Your task to perform on an android device: choose inbox layout in the gmail app Image 0: 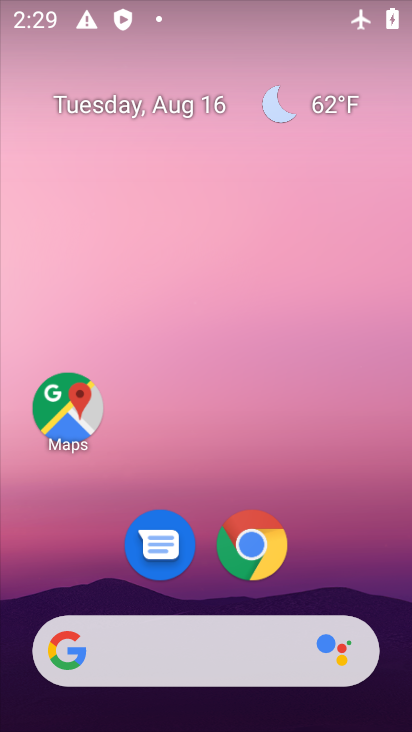
Step 0: drag from (296, 609) to (285, 201)
Your task to perform on an android device: choose inbox layout in the gmail app Image 1: 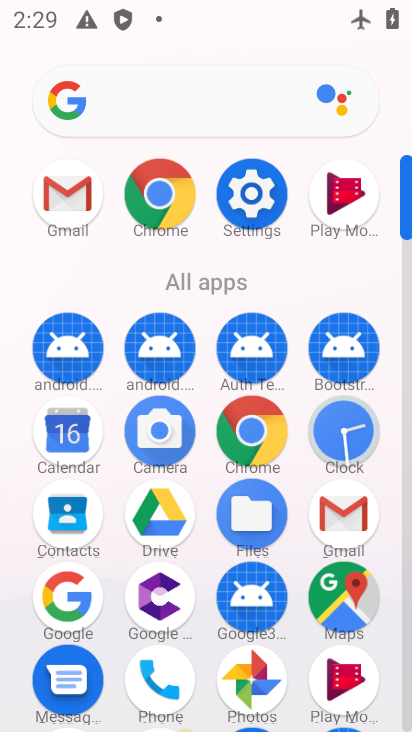
Step 1: click (81, 196)
Your task to perform on an android device: choose inbox layout in the gmail app Image 2: 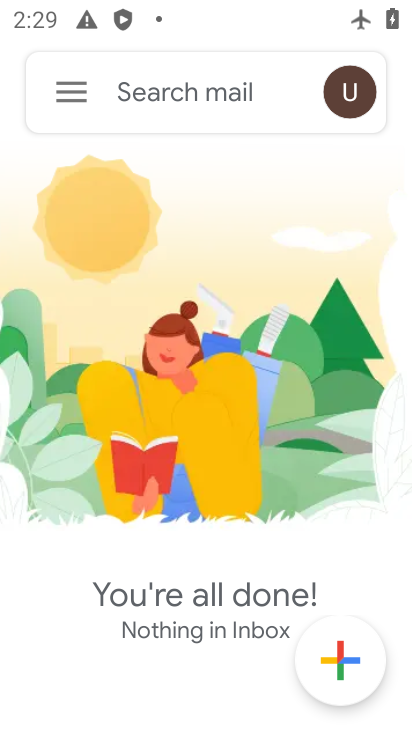
Step 2: click (68, 102)
Your task to perform on an android device: choose inbox layout in the gmail app Image 3: 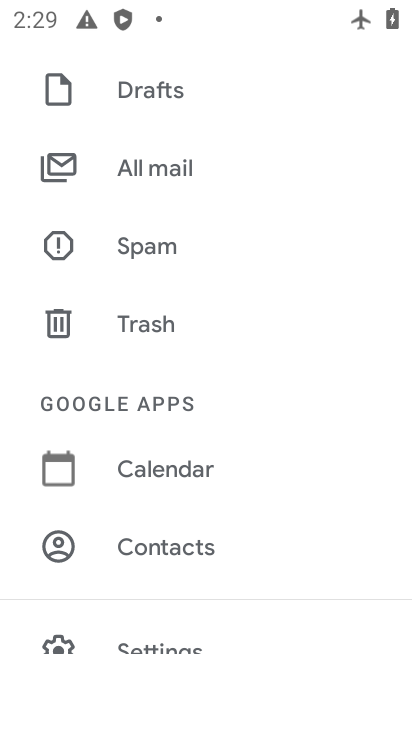
Step 3: click (124, 650)
Your task to perform on an android device: choose inbox layout in the gmail app Image 4: 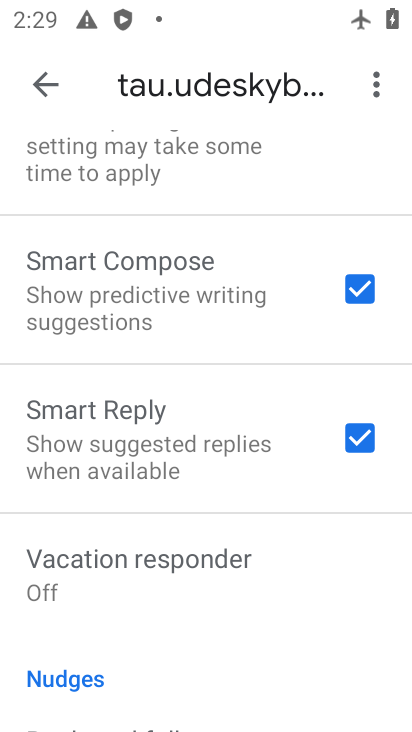
Step 4: drag from (95, 623) to (105, 260)
Your task to perform on an android device: choose inbox layout in the gmail app Image 5: 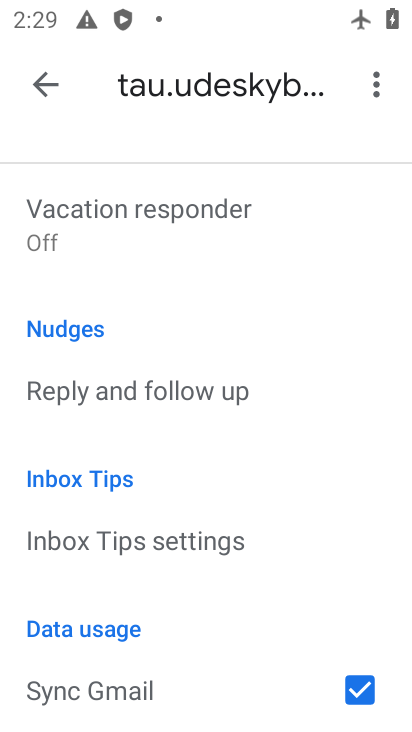
Step 5: drag from (90, 698) to (83, 432)
Your task to perform on an android device: choose inbox layout in the gmail app Image 6: 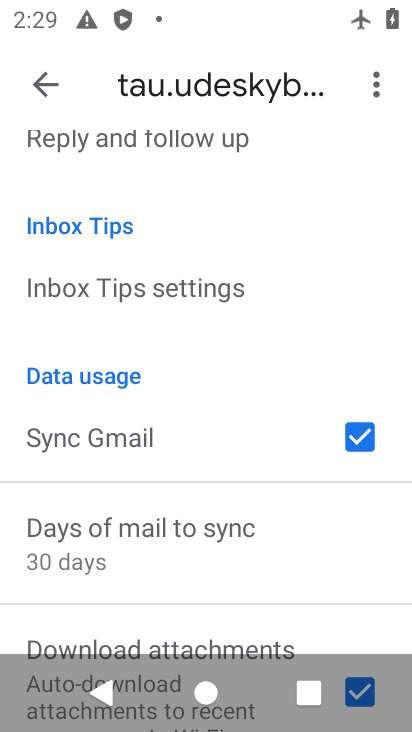
Step 6: drag from (69, 597) to (73, 325)
Your task to perform on an android device: choose inbox layout in the gmail app Image 7: 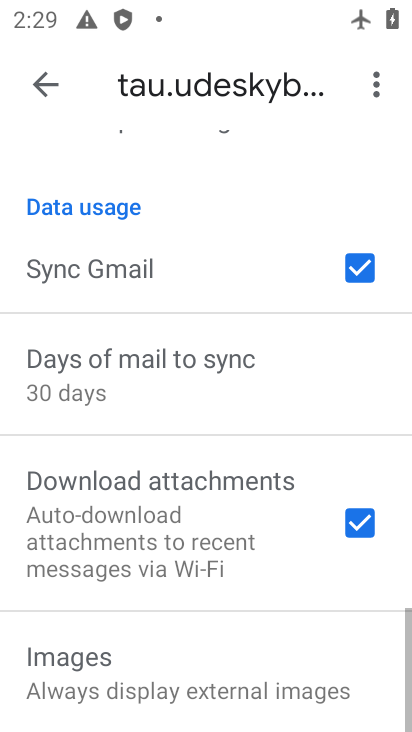
Step 7: drag from (87, 167) to (129, 601)
Your task to perform on an android device: choose inbox layout in the gmail app Image 8: 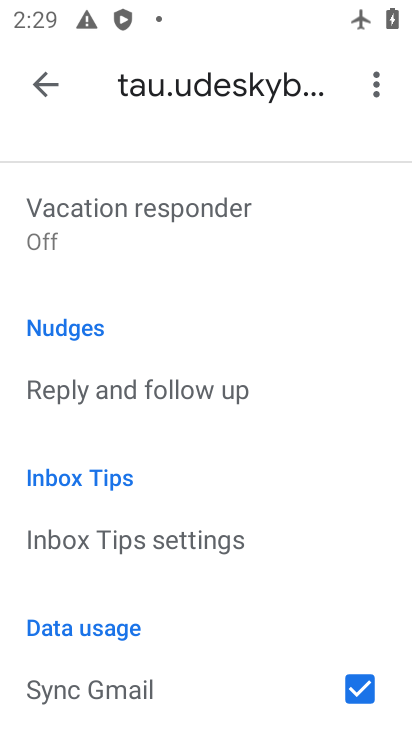
Step 8: drag from (168, 217) to (178, 654)
Your task to perform on an android device: choose inbox layout in the gmail app Image 9: 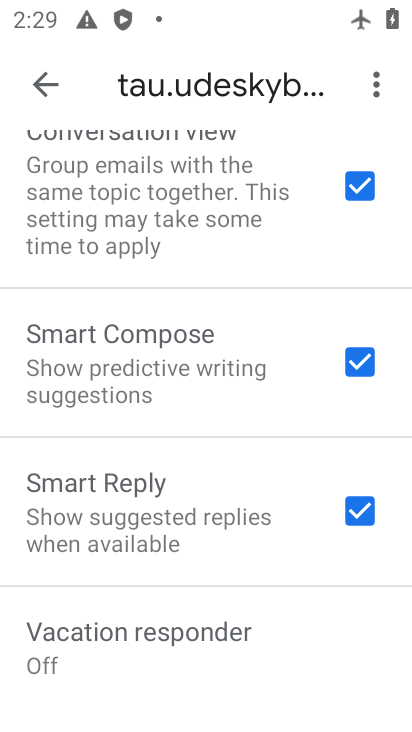
Step 9: drag from (192, 215) to (203, 640)
Your task to perform on an android device: choose inbox layout in the gmail app Image 10: 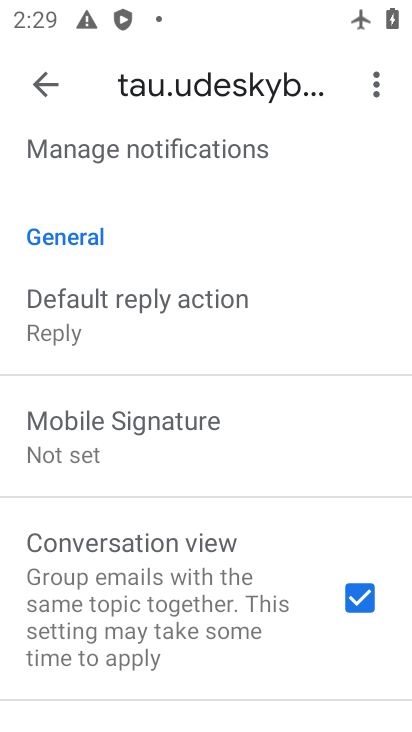
Step 10: drag from (220, 271) to (251, 571)
Your task to perform on an android device: choose inbox layout in the gmail app Image 11: 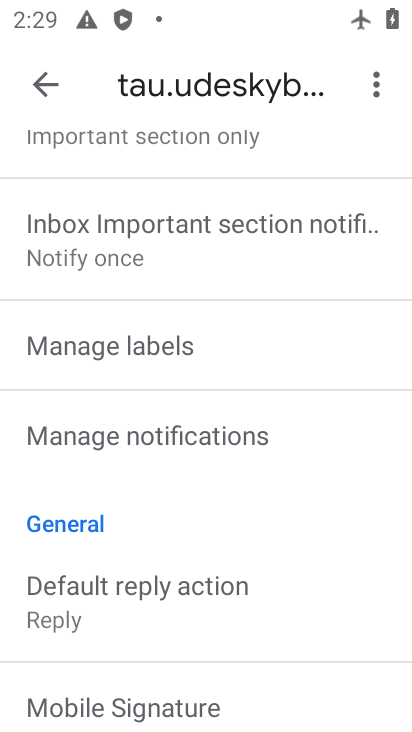
Step 11: drag from (157, 218) to (166, 494)
Your task to perform on an android device: choose inbox layout in the gmail app Image 12: 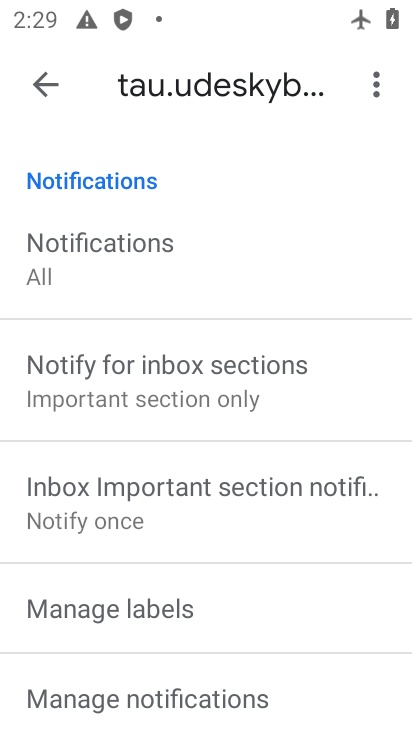
Step 12: drag from (116, 260) to (140, 685)
Your task to perform on an android device: choose inbox layout in the gmail app Image 13: 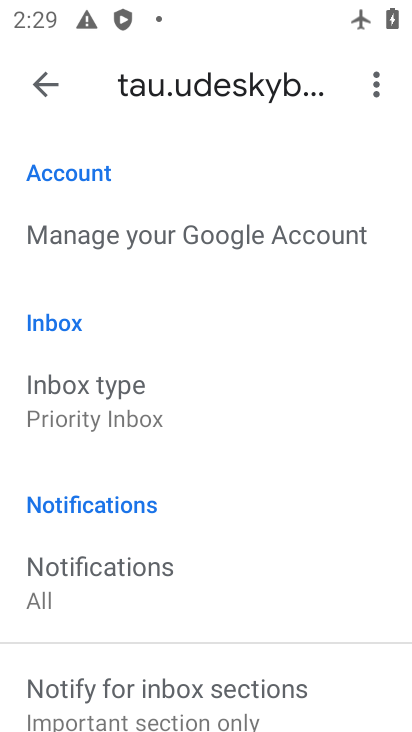
Step 13: click (64, 417)
Your task to perform on an android device: choose inbox layout in the gmail app Image 14: 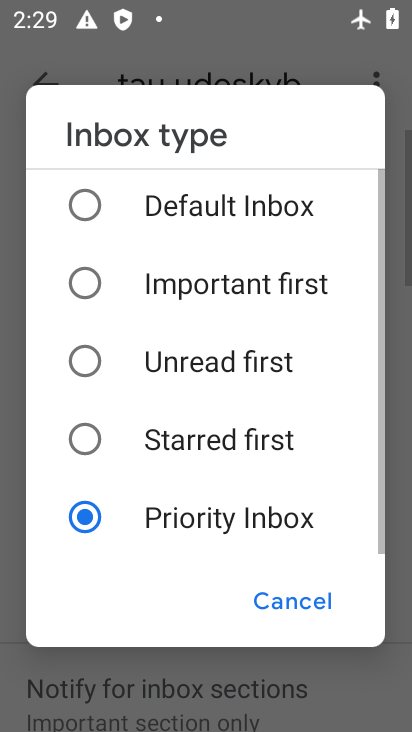
Step 14: click (124, 292)
Your task to perform on an android device: choose inbox layout in the gmail app Image 15: 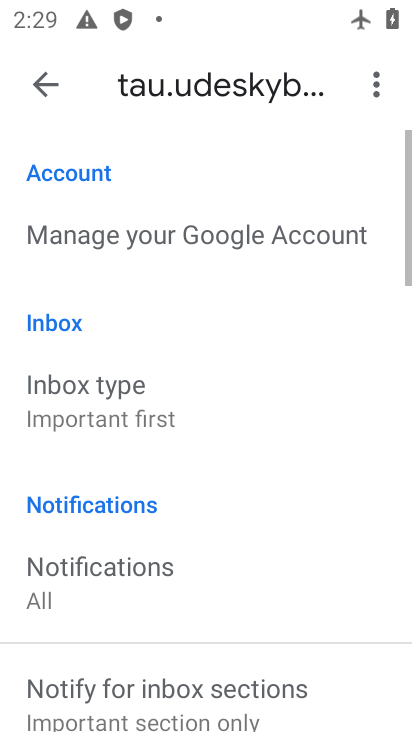
Step 15: task complete